Your task to perform on an android device: change alarm snooze length Image 0: 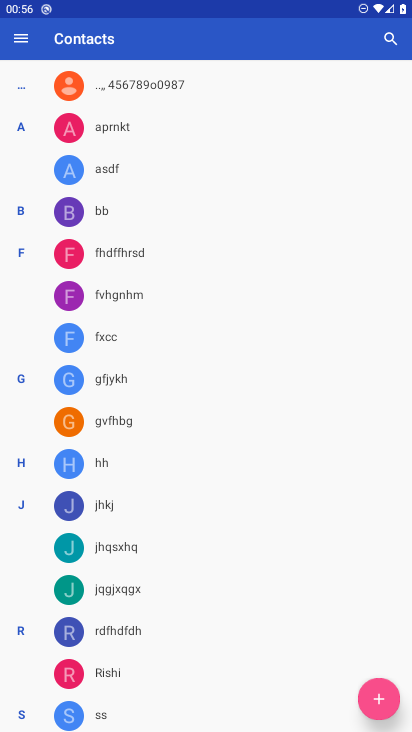
Step 0: press home button
Your task to perform on an android device: change alarm snooze length Image 1: 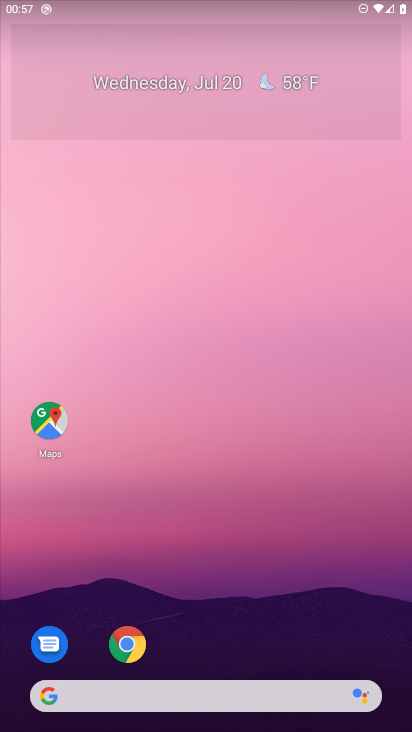
Step 1: drag from (176, 37) to (217, 20)
Your task to perform on an android device: change alarm snooze length Image 2: 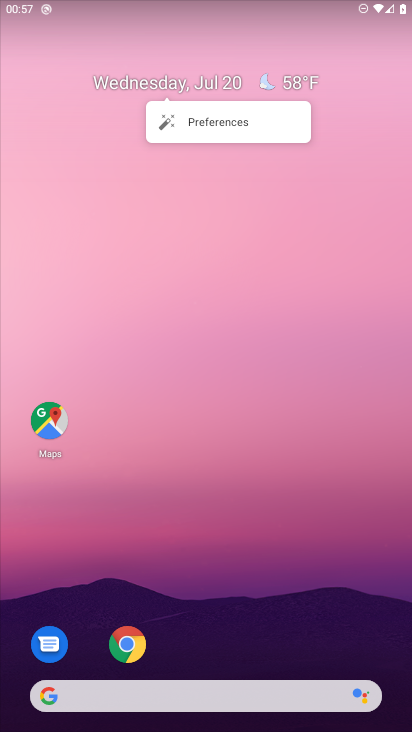
Step 2: drag from (25, 697) to (150, 51)
Your task to perform on an android device: change alarm snooze length Image 3: 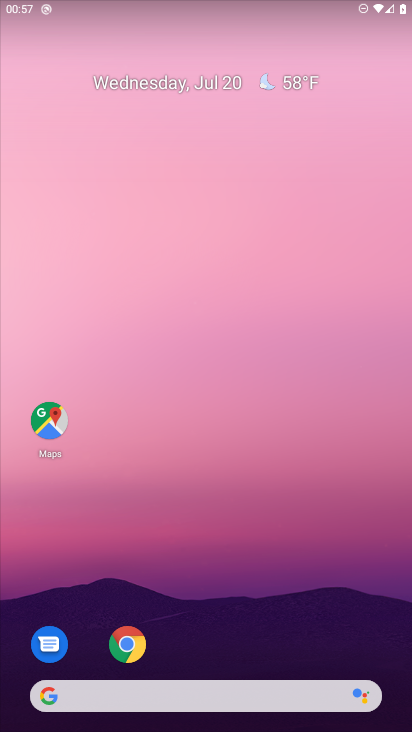
Step 3: drag from (9, 693) to (227, 213)
Your task to perform on an android device: change alarm snooze length Image 4: 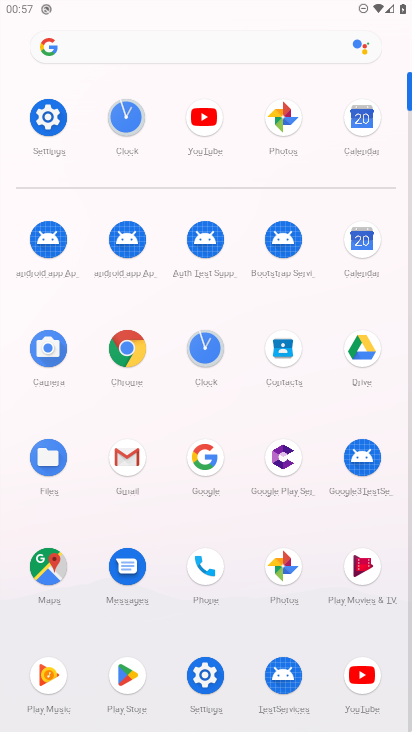
Step 4: click (203, 347)
Your task to perform on an android device: change alarm snooze length Image 5: 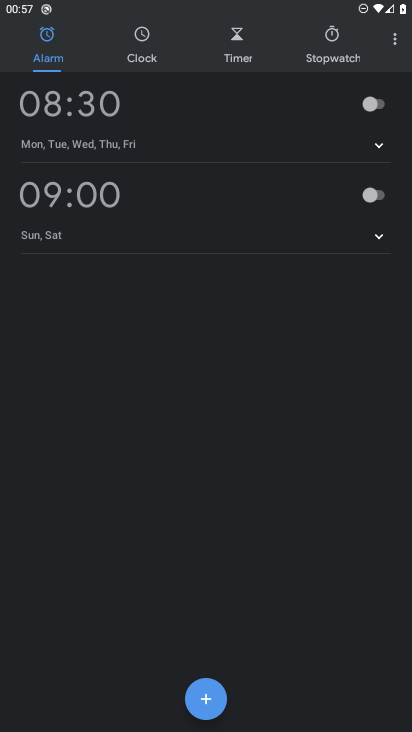
Step 5: click (394, 34)
Your task to perform on an android device: change alarm snooze length Image 6: 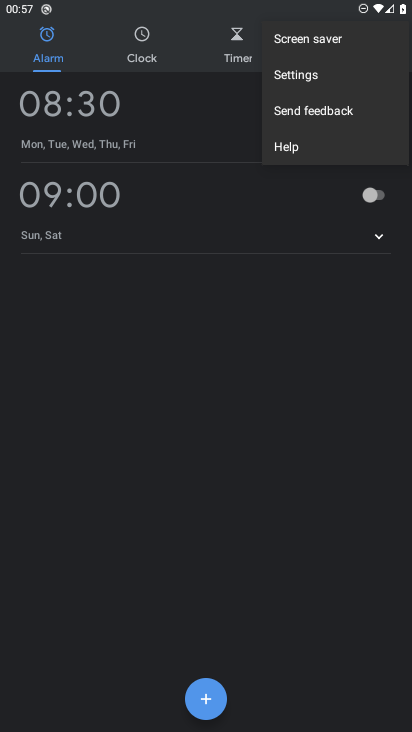
Step 6: click (297, 76)
Your task to perform on an android device: change alarm snooze length Image 7: 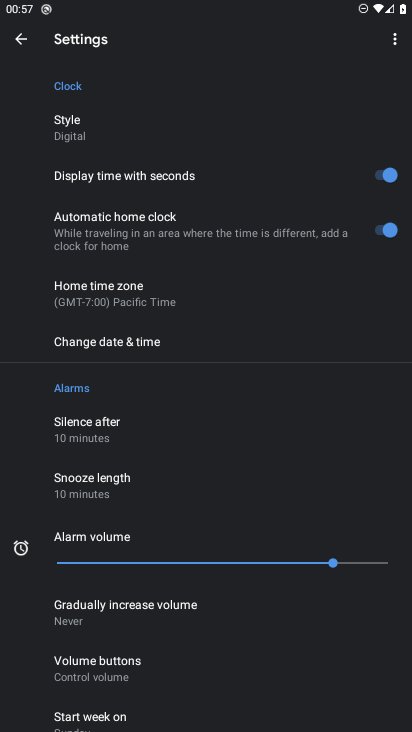
Step 7: click (101, 488)
Your task to perform on an android device: change alarm snooze length Image 8: 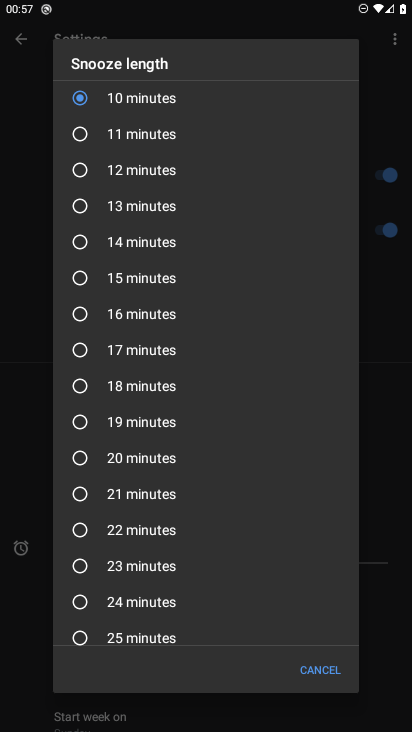
Step 8: click (79, 281)
Your task to perform on an android device: change alarm snooze length Image 9: 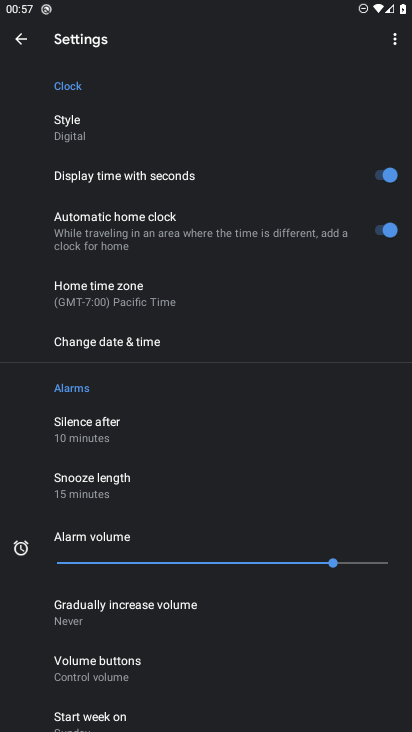
Step 9: task complete